Your task to perform on an android device: Go to Reddit.com Image 0: 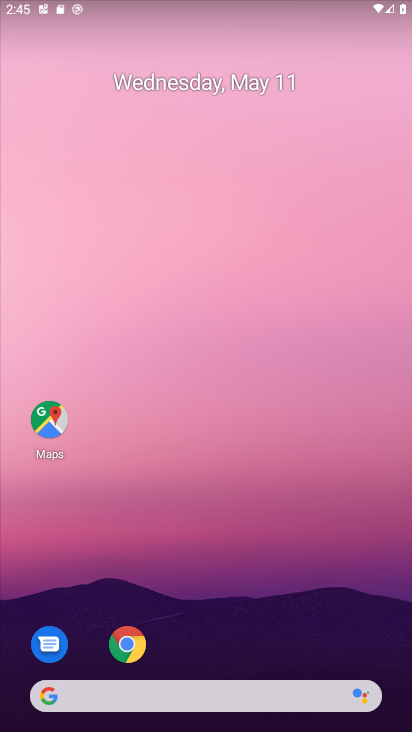
Step 0: click (136, 643)
Your task to perform on an android device: Go to Reddit.com Image 1: 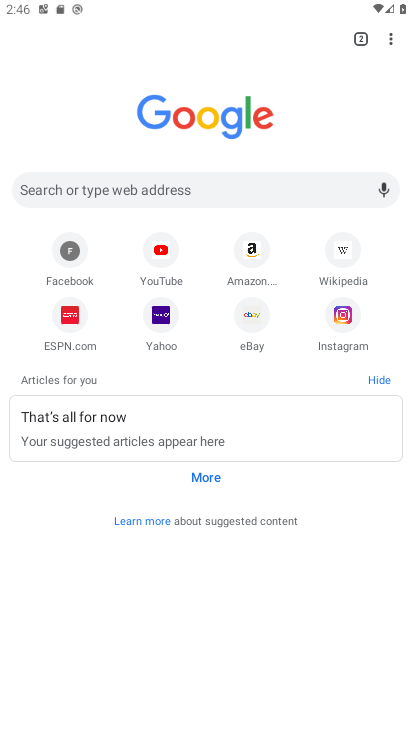
Step 1: click (168, 190)
Your task to perform on an android device: Go to Reddit.com Image 2: 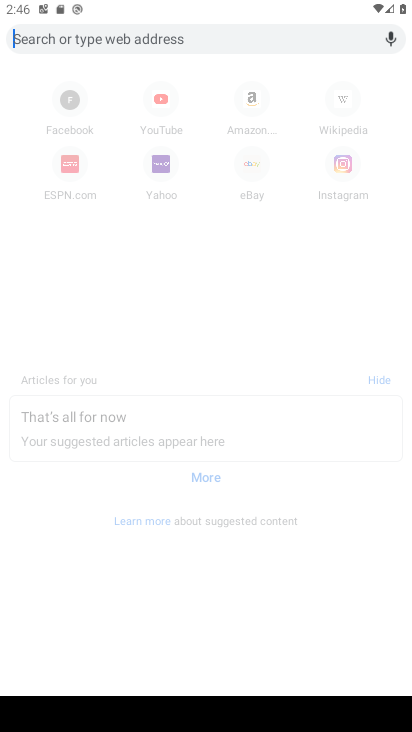
Step 2: type "reddit"
Your task to perform on an android device: Go to Reddit.com Image 3: 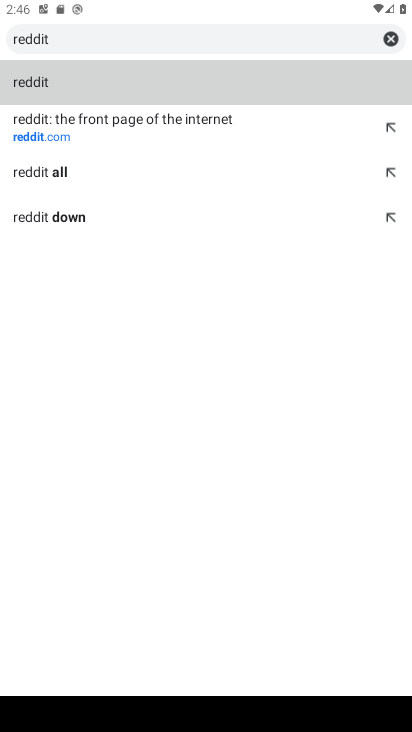
Step 3: click (46, 134)
Your task to perform on an android device: Go to Reddit.com Image 4: 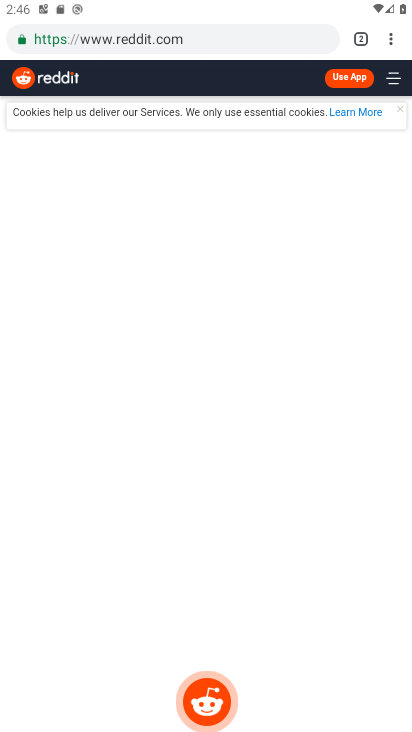
Step 4: task complete